Your task to perform on an android device: What's the weather going to be tomorrow? Image 0: 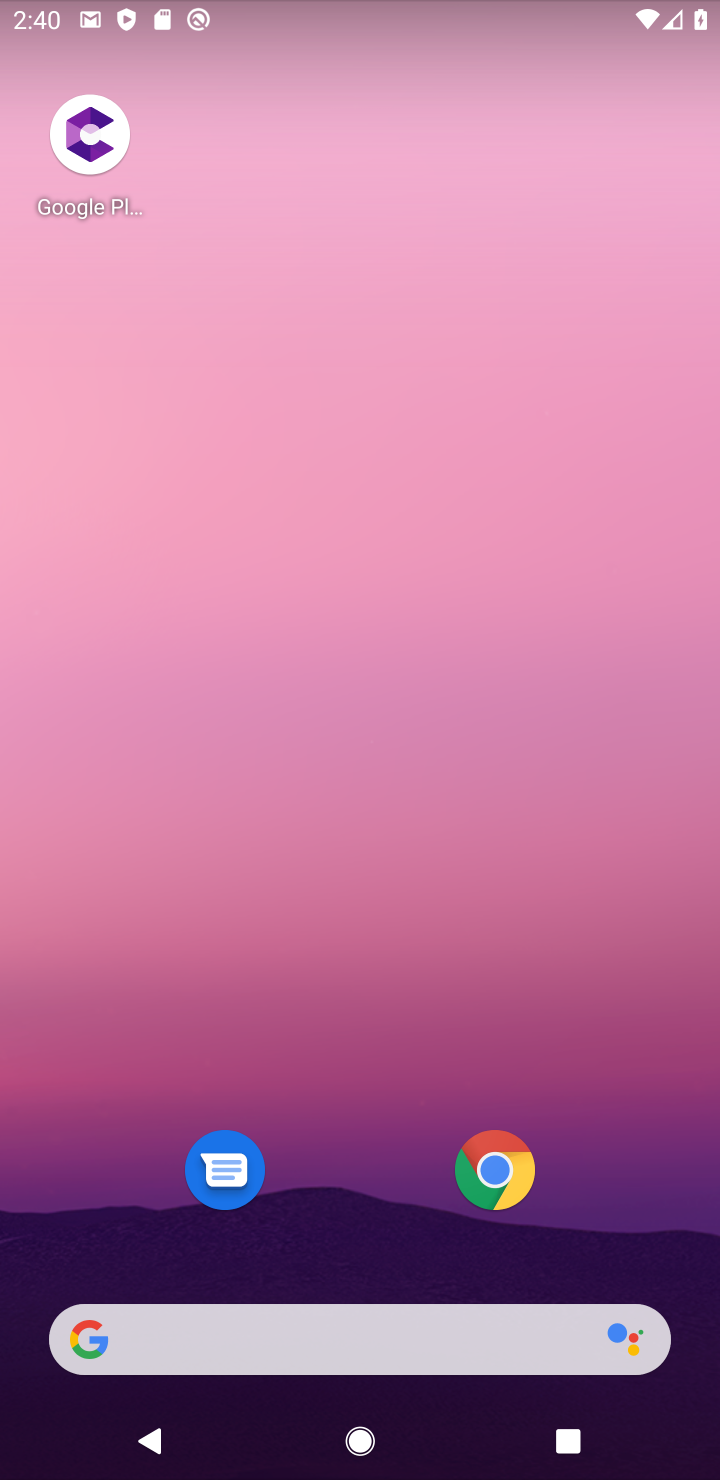
Step 0: click (396, 1358)
Your task to perform on an android device: What's the weather going to be tomorrow? Image 1: 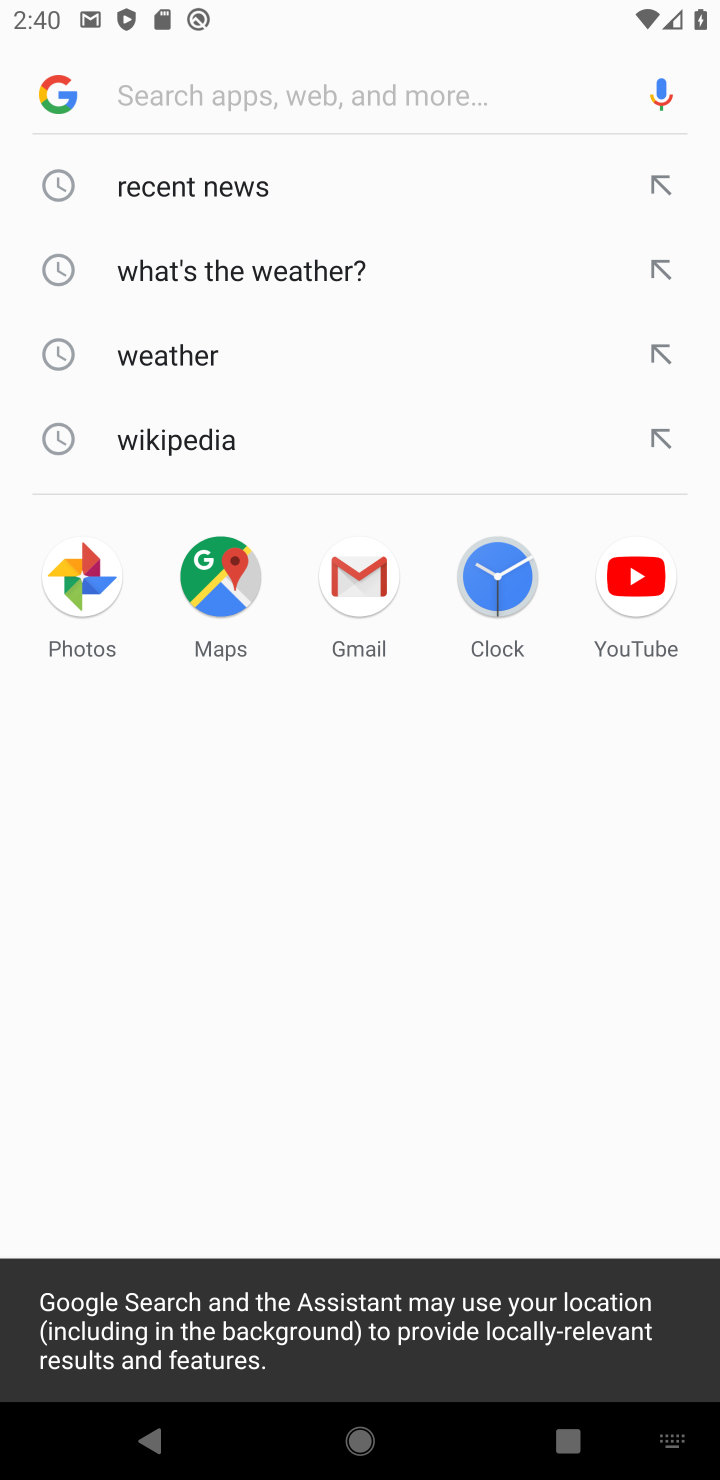
Step 1: click (195, 348)
Your task to perform on an android device: What's the weather going to be tomorrow? Image 2: 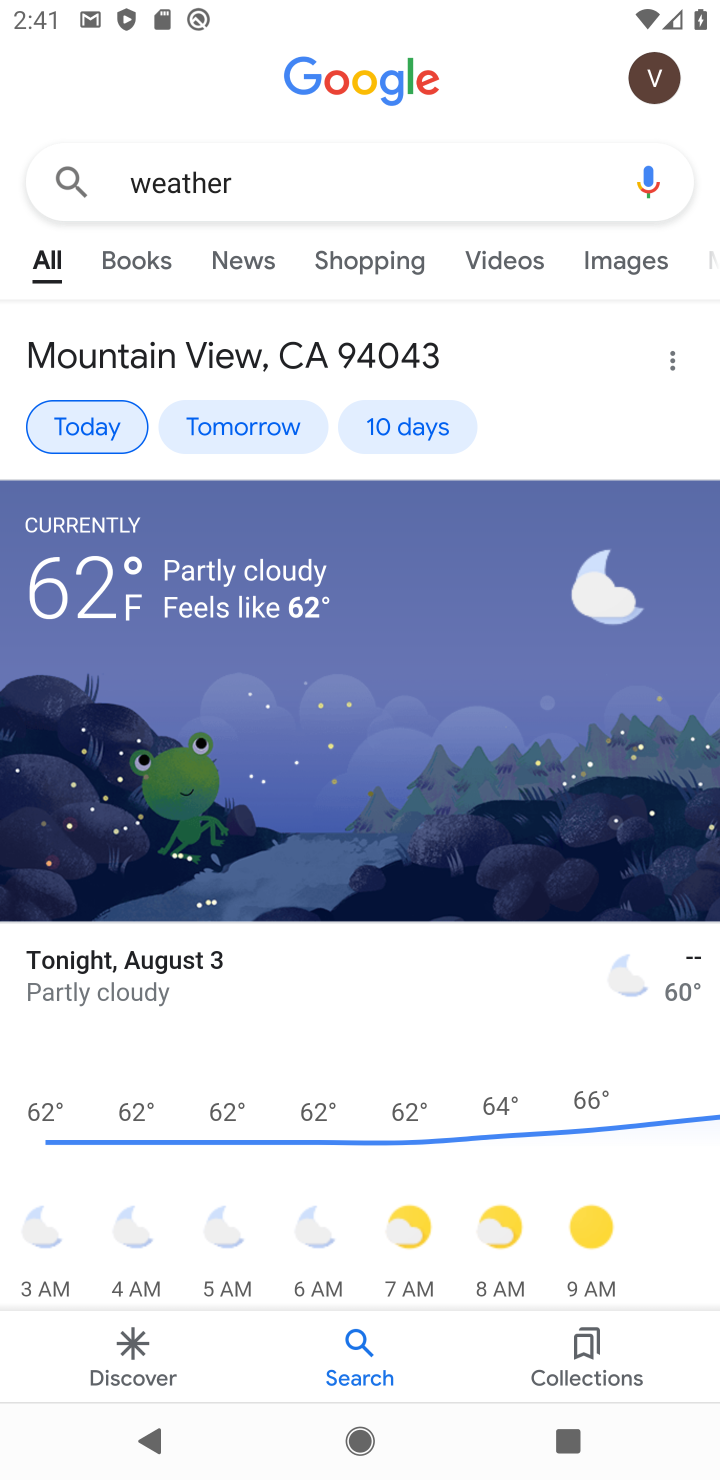
Step 2: click (220, 421)
Your task to perform on an android device: What's the weather going to be tomorrow? Image 3: 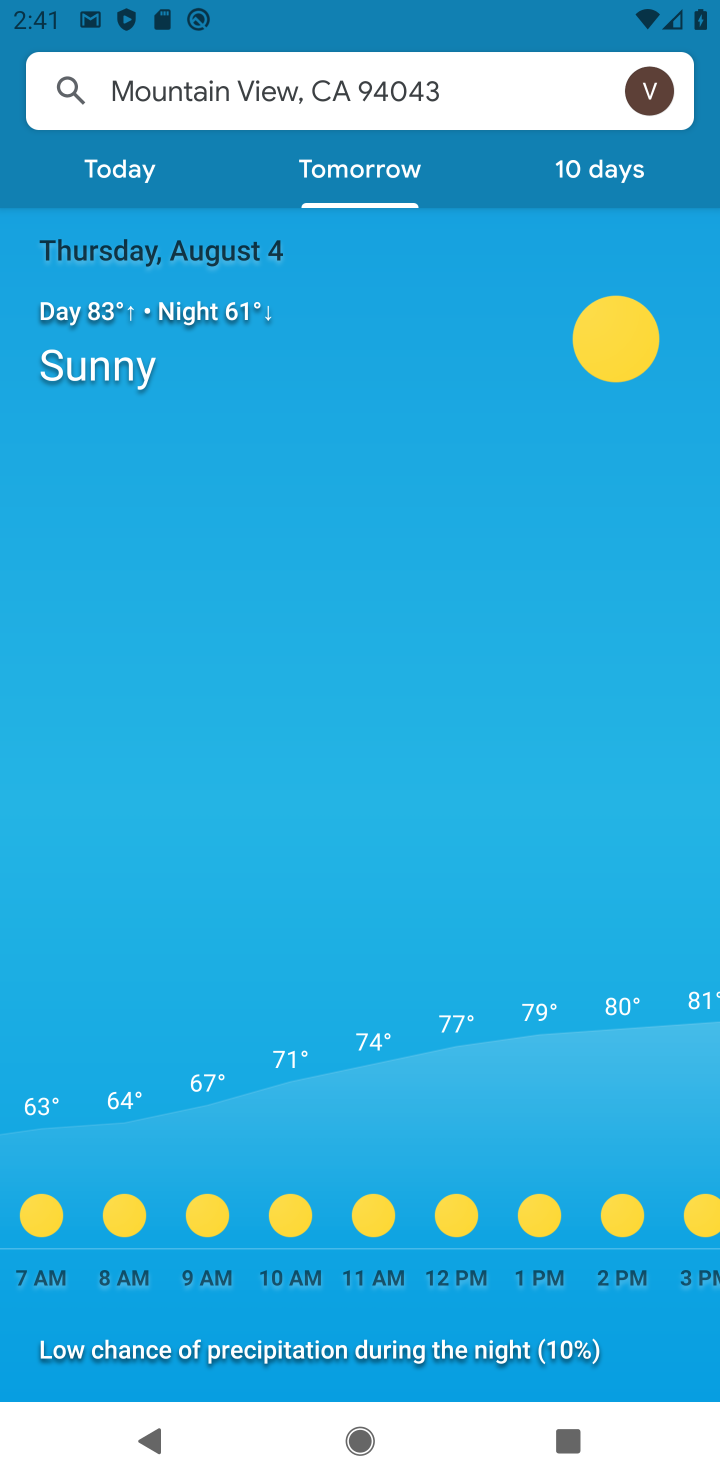
Step 3: task complete